Your task to perform on an android device: Open internet settings Image 0: 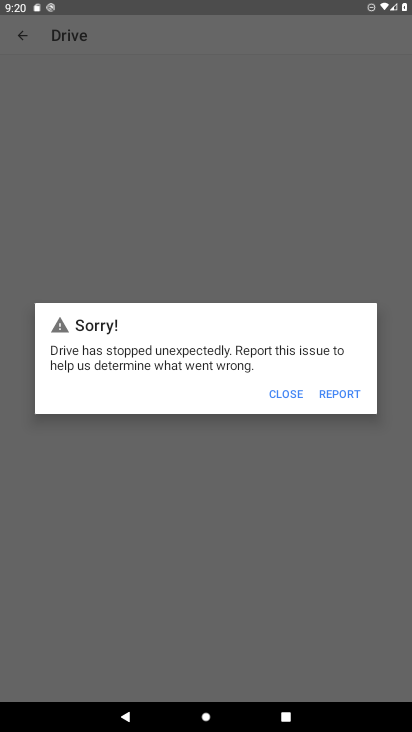
Step 0: press home button
Your task to perform on an android device: Open internet settings Image 1: 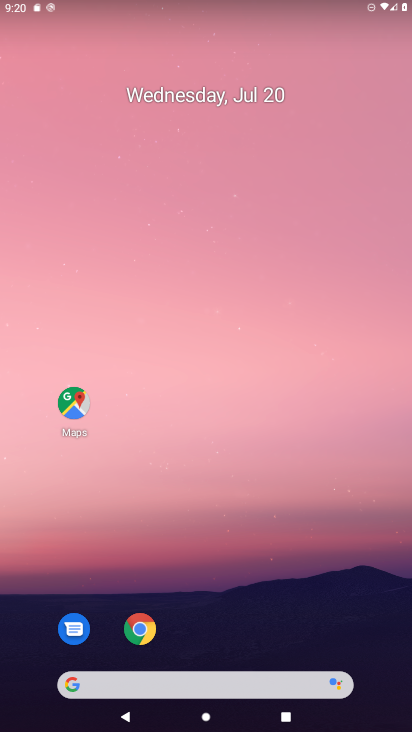
Step 1: drag from (351, 625) to (342, 97)
Your task to perform on an android device: Open internet settings Image 2: 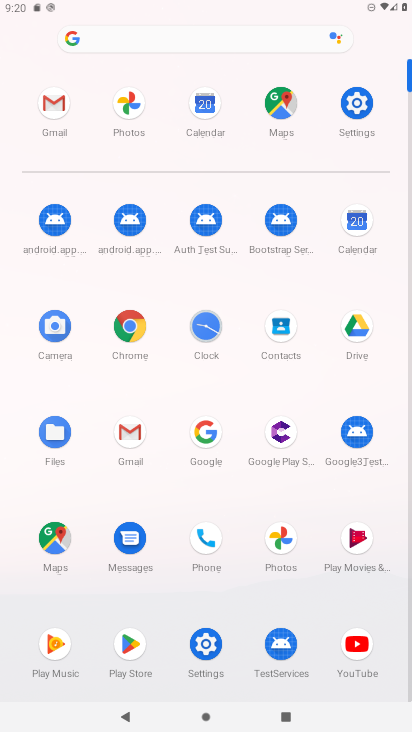
Step 2: click (203, 641)
Your task to perform on an android device: Open internet settings Image 3: 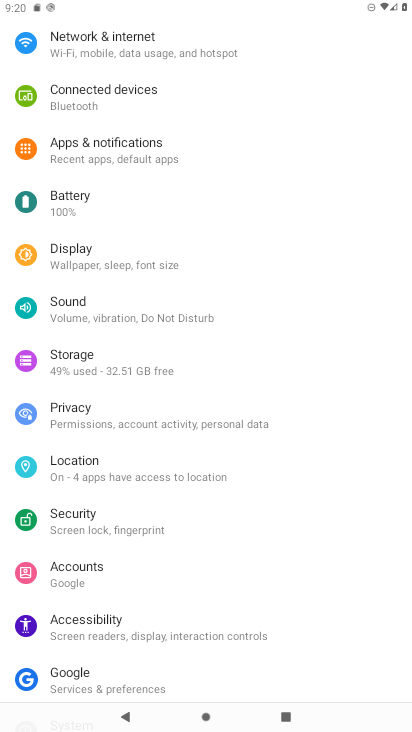
Step 3: click (86, 45)
Your task to perform on an android device: Open internet settings Image 4: 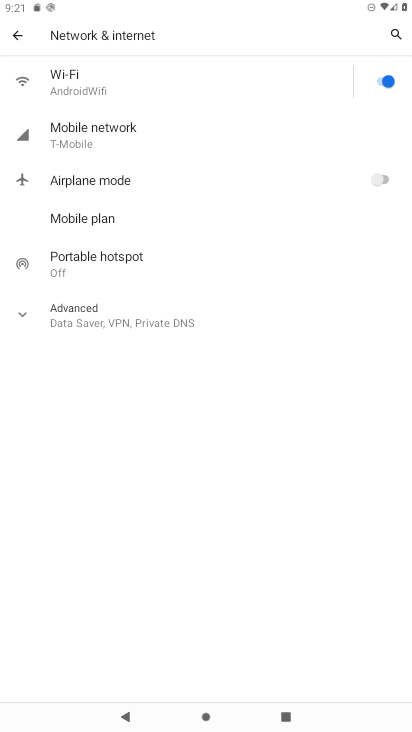
Step 4: click (59, 71)
Your task to perform on an android device: Open internet settings Image 5: 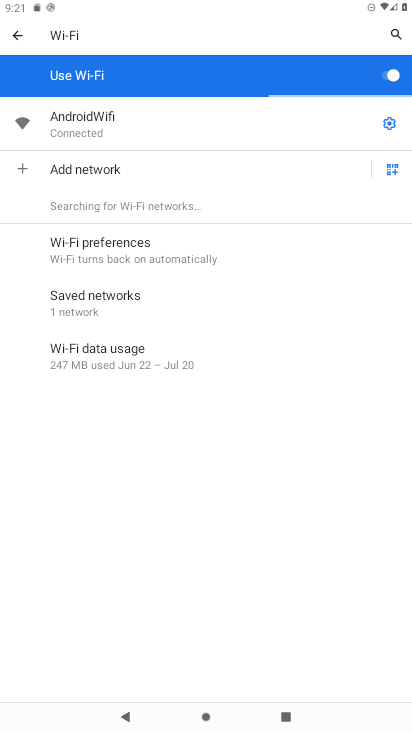
Step 5: click (385, 123)
Your task to perform on an android device: Open internet settings Image 6: 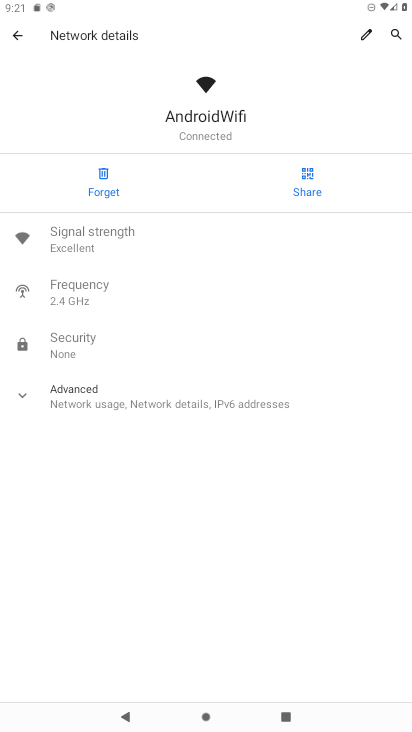
Step 6: task complete